Your task to perform on an android device: Open Android settings Image 0: 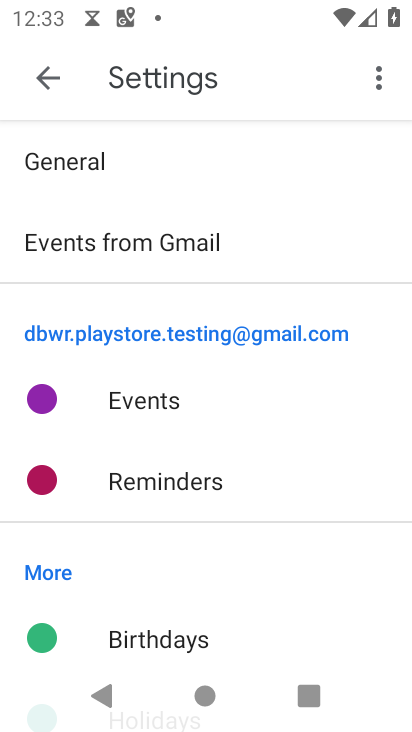
Step 0: press home button
Your task to perform on an android device: Open Android settings Image 1: 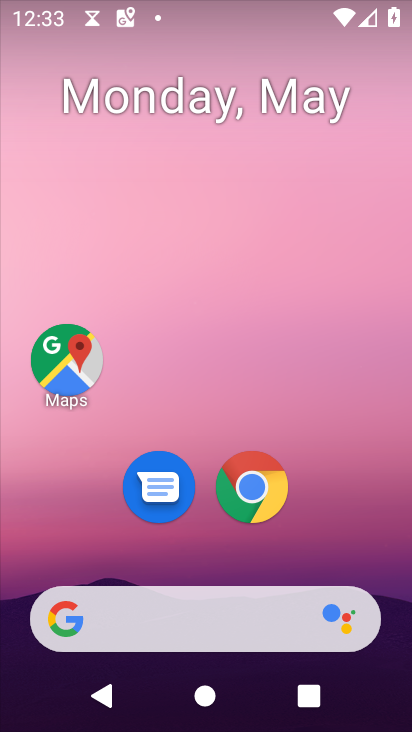
Step 1: drag from (194, 544) to (211, 2)
Your task to perform on an android device: Open Android settings Image 2: 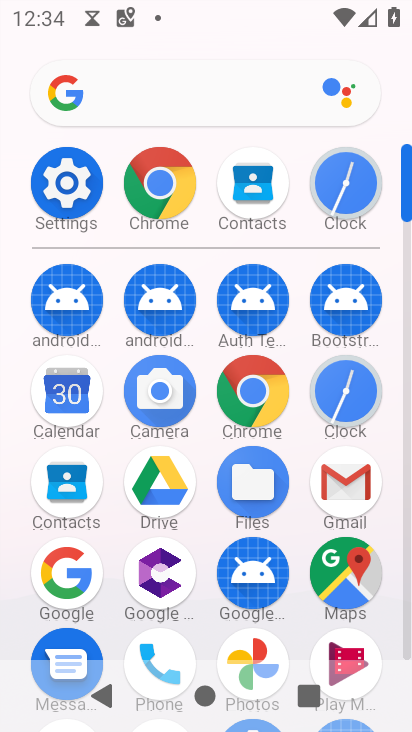
Step 2: click (68, 188)
Your task to perform on an android device: Open Android settings Image 3: 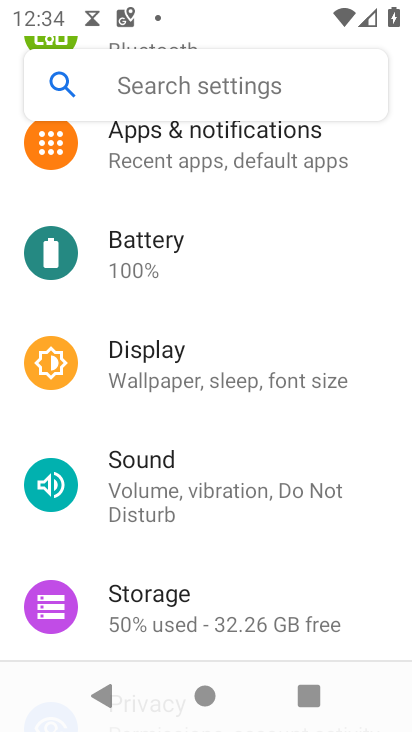
Step 3: drag from (247, 537) to (191, 221)
Your task to perform on an android device: Open Android settings Image 4: 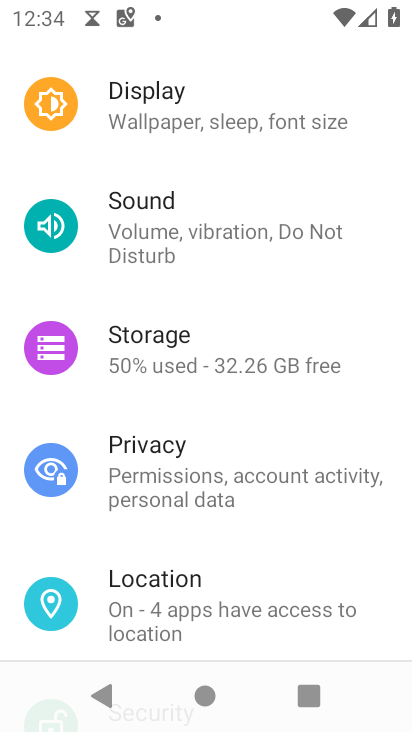
Step 4: drag from (210, 570) to (191, 125)
Your task to perform on an android device: Open Android settings Image 5: 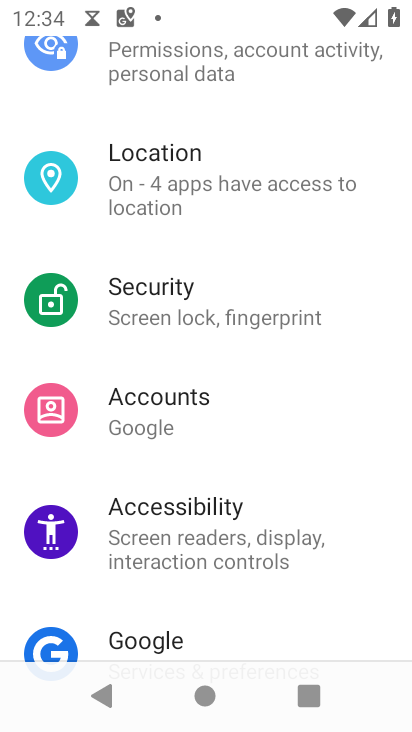
Step 5: drag from (234, 604) to (286, 187)
Your task to perform on an android device: Open Android settings Image 6: 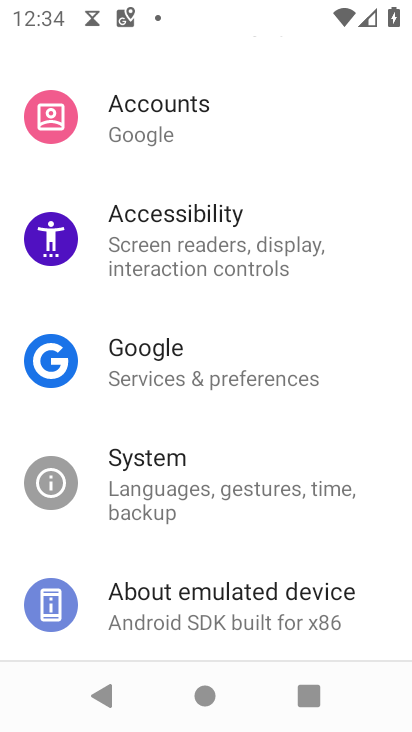
Step 6: drag from (242, 586) to (274, 191)
Your task to perform on an android device: Open Android settings Image 7: 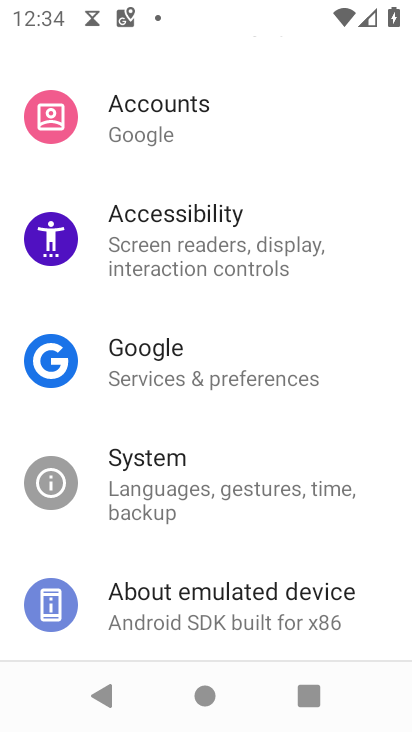
Step 7: click (177, 492)
Your task to perform on an android device: Open Android settings Image 8: 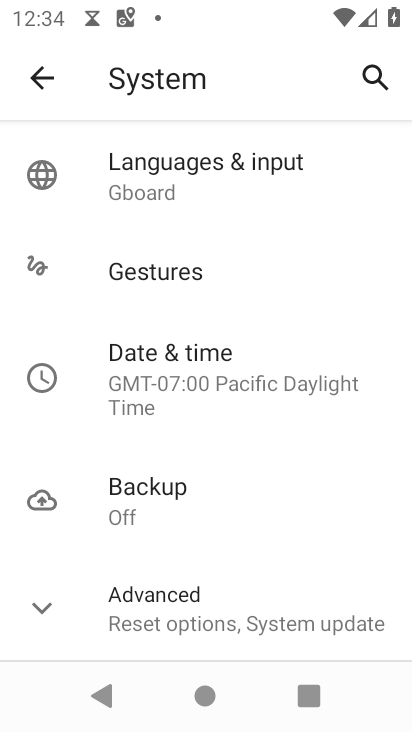
Step 8: task complete